Your task to perform on an android device: turn on priority inbox in the gmail app Image 0: 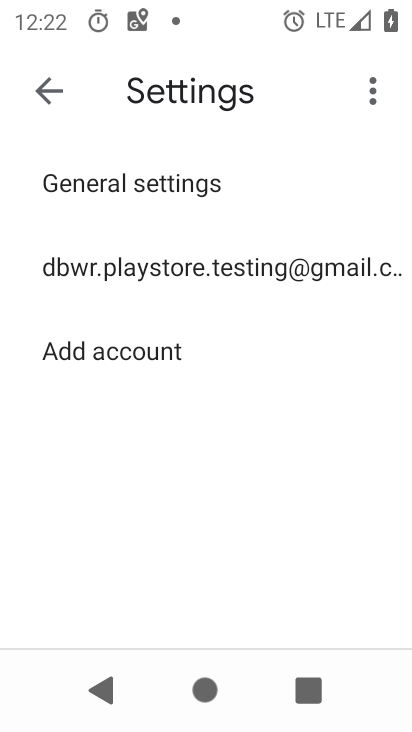
Step 0: click (234, 271)
Your task to perform on an android device: turn on priority inbox in the gmail app Image 1: 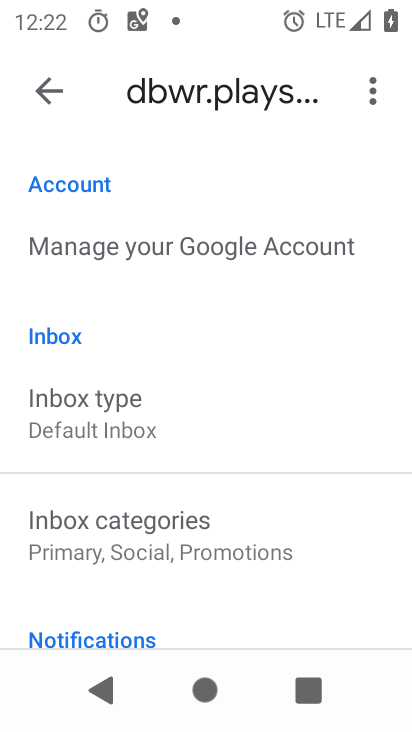
Step 1: click (241, 447)
Your task to perform on an android device: turn on priority inbox in the gmail app Image 2: 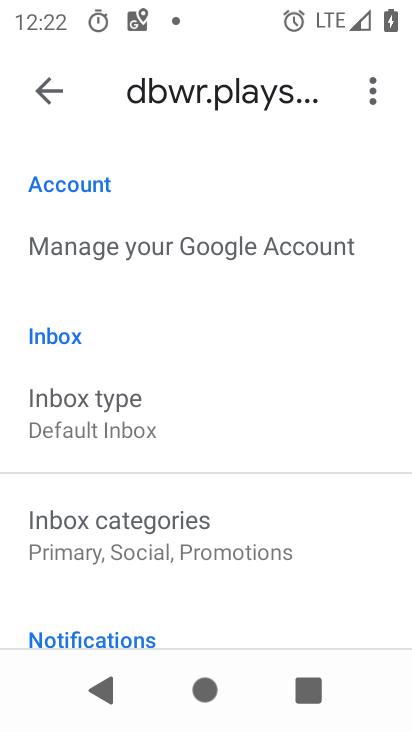
Step 2: click (44, 419)
Your task to perform on an android device: turn on priority inbox in the gmail app Image 3: 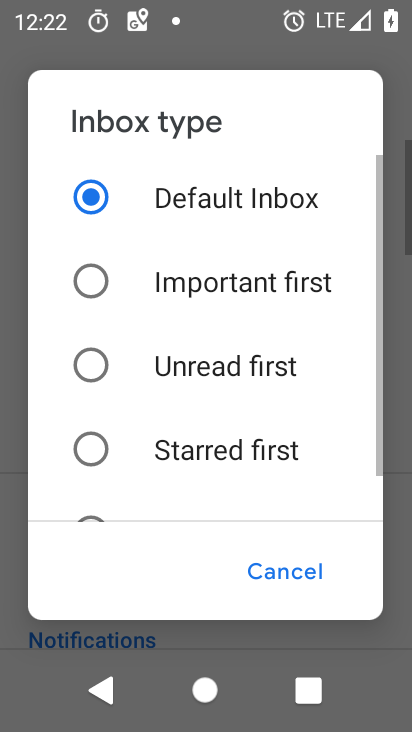
Step 3: drag from (176, 437) to (177, 188)
Your task to perform on an android device: turn on priority inbox in the gmail app Image 4: 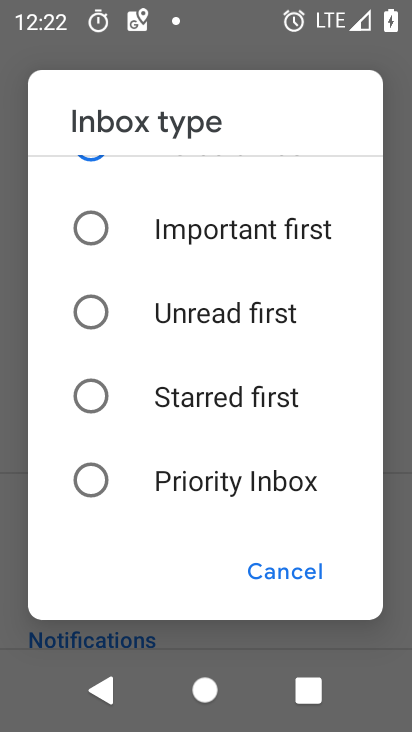
Step 4: click (144, 478)
Your task to perform on an android device: turn on priority inbox in the gmail app Image 5: 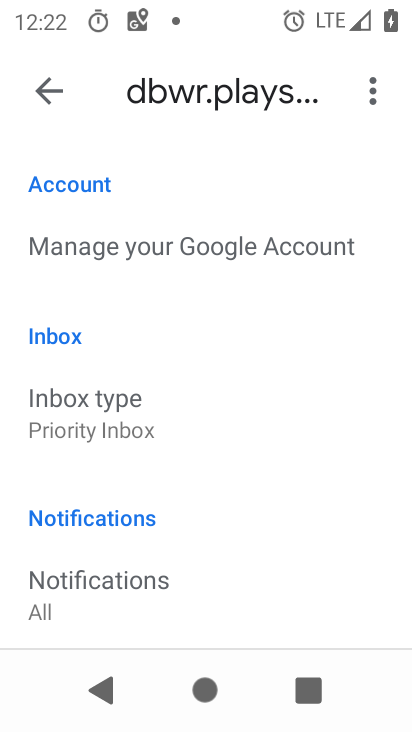
Step 5: task complete